Your task to perform on an android device: turn notification dots on Image 0: 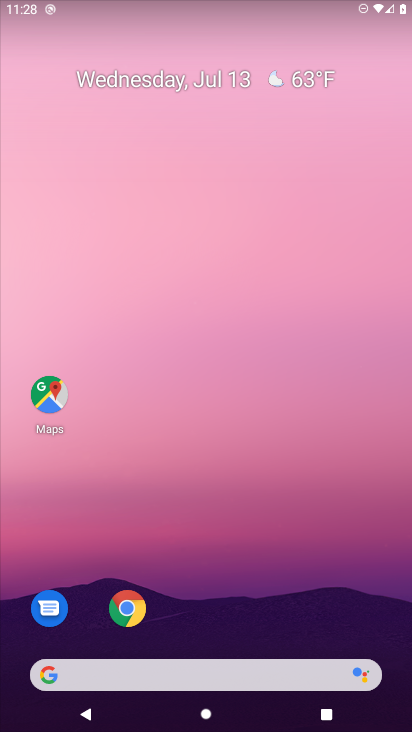
Step 0: press home button
Your task to perform on an android device: turn notification dots on Image 1: 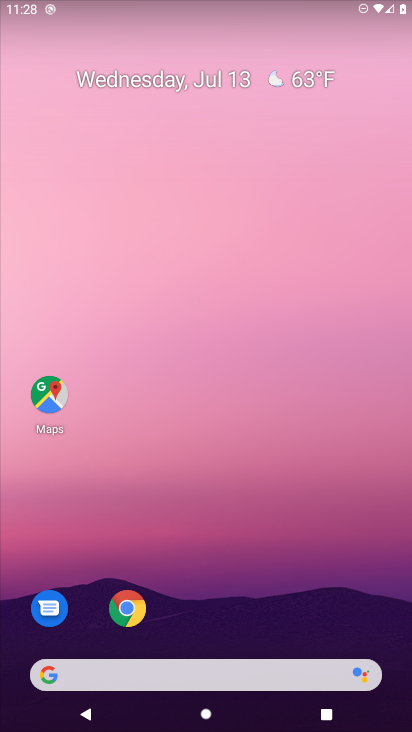
Step 1: drag from (256, 574) to (320, 106)
Your task to perform on an android device: turn notification dots on Image 2: 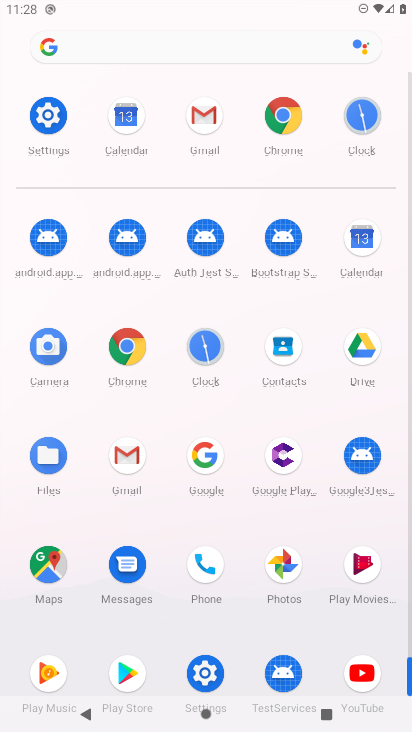
Step 2: click (42, 115)
Your task to perform on an android device: turn notification dots on Image 3: 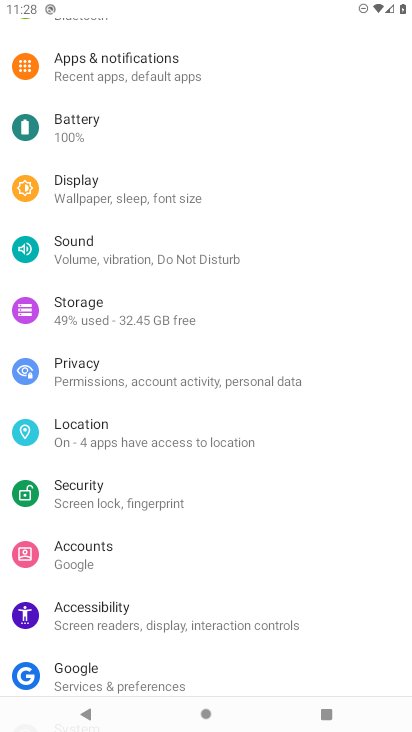
Step 3: click (112, 70)
Your task to perform on an android device: turn notification dots on Image 4: 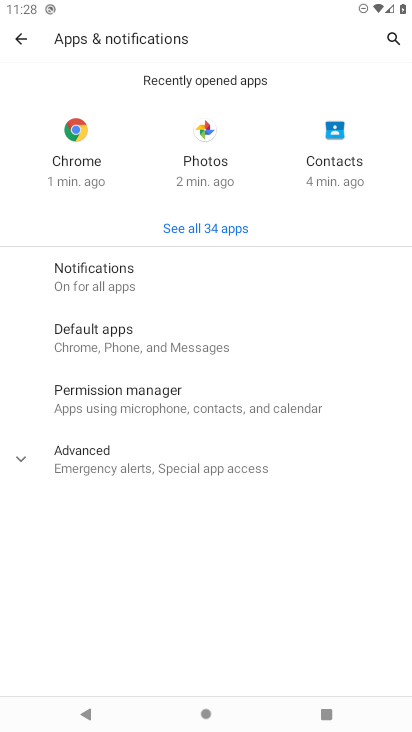
Step 4: click (119, 281)
Your task to perform on an android device: turn notification dots on Image 5: 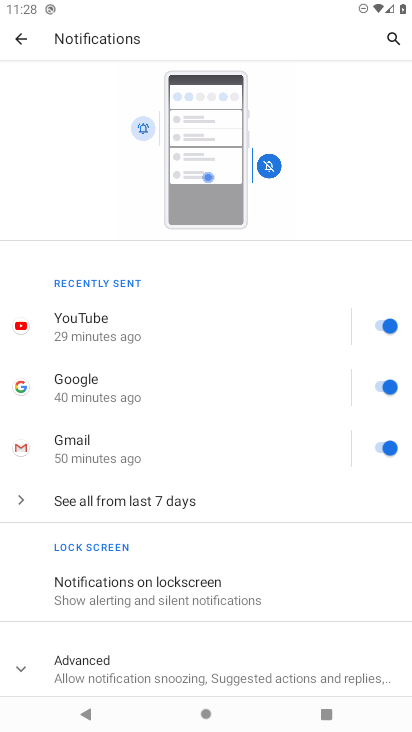
Step 5: click (21, 670)
Your task to perform on an android device: turn notification dots on Image 6: 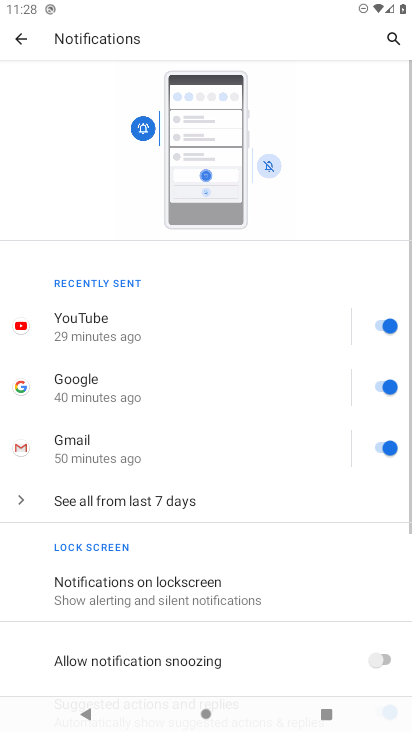
Step 6: task complete